Your task to perform on an android device: Open calendar and show me the third week of next month Image 0: 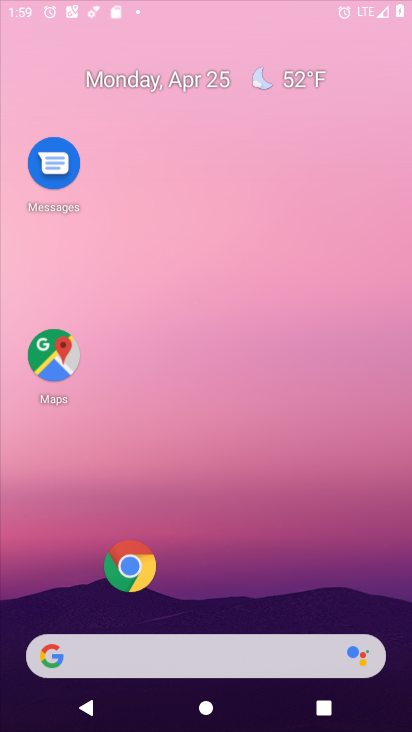
Step 0: drag from (258, 570) to (332, 215)
Your task to perform on an android device: Open calendar and show me the third week of next month Image 1: 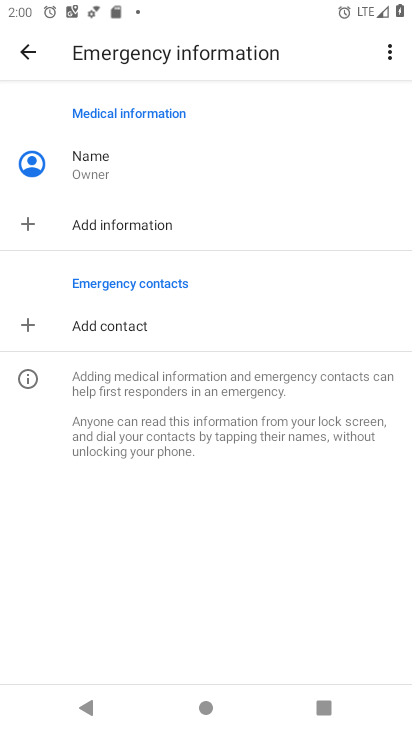
Step 1: press home button
Your task to perform on an android device: Open calendar and show me the third week of next month Image 2: 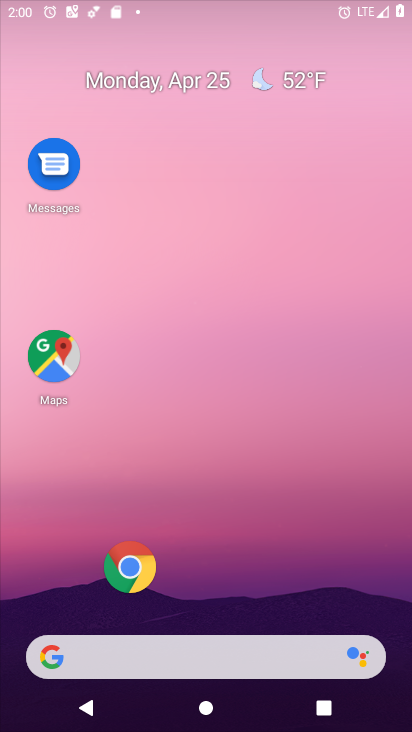
Step 2: drag from (243, 516) to (301, 130)
Your task to perform on an android device: Open calendar and show me the third week of next month Image 3: 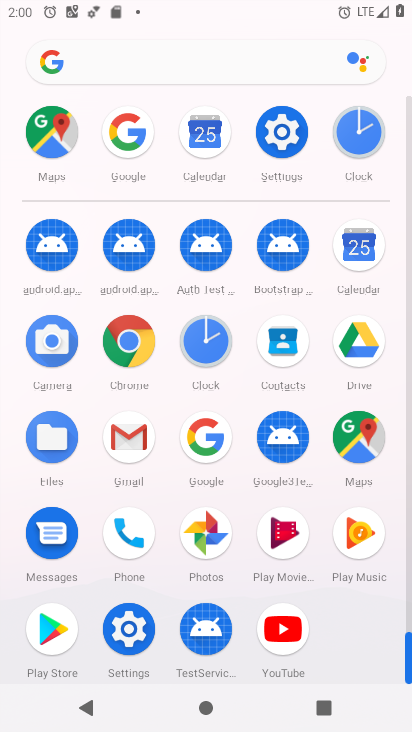
Step 3: click (360, 255)
Your task to perform on an android device: Open calendar and show me the third week of next month Image 4: 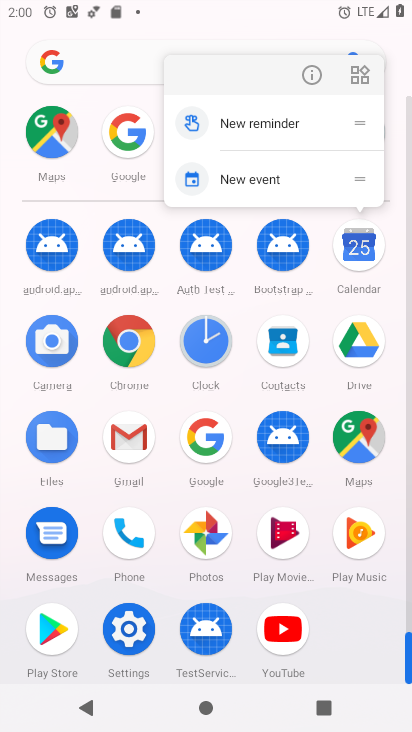
Step 4: click (363, 271)
Your task to perform on an android device: Open calendar and show me the third week of next month Image 5: 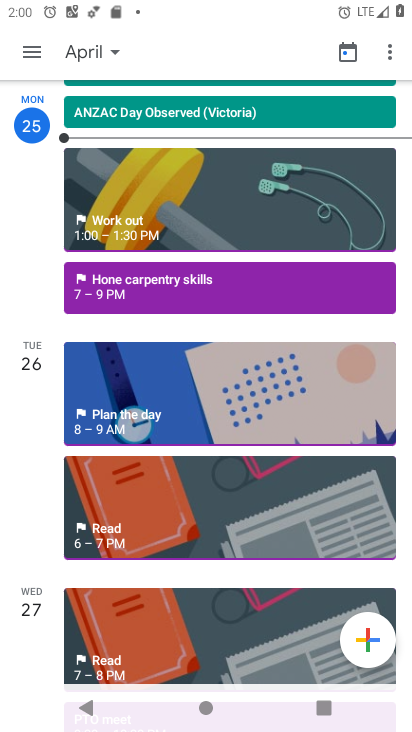
Step 5: click (113, 59)
Your task to perform on an android device: Open calendar and show me the third week of next month Image 6: 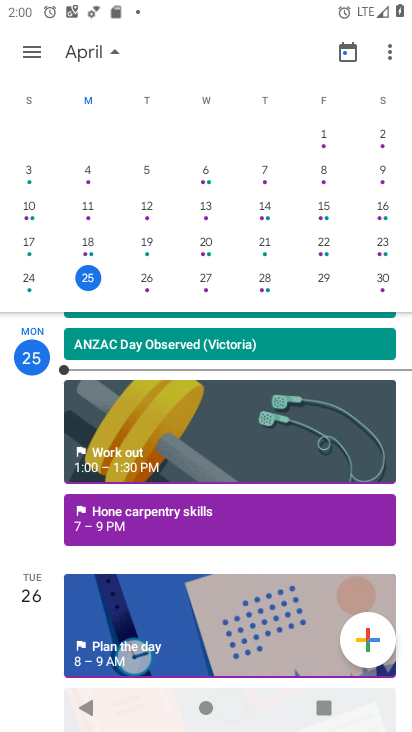
Step 6: drag from (204, 228) to (4, 222)
Your task to perform on an android device: Open calendar and show me the third week of next month Image 7: 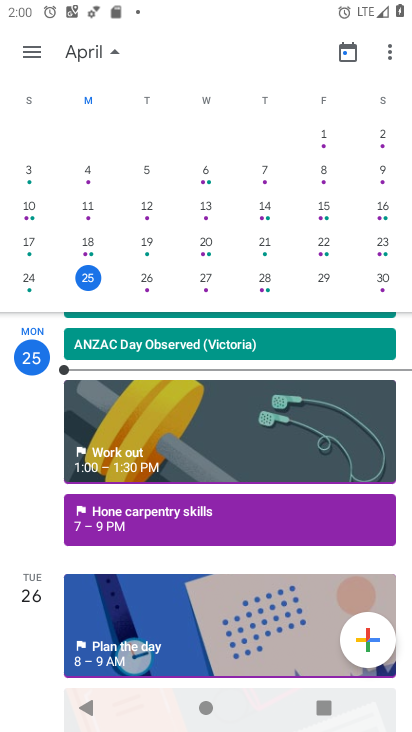
Step 7: drag from (140, 222) to (1, 174)
Your task to perform on an android device: Open calendar and show me the third week of next month Image 8: 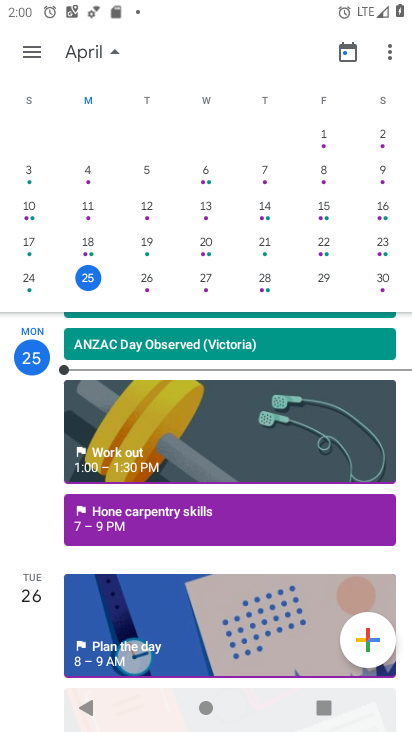
Step 8: drag from (346, 227) to (6, 246)
Your task to perform on an android device: Open calendar and show me the third week of next month Image 9: 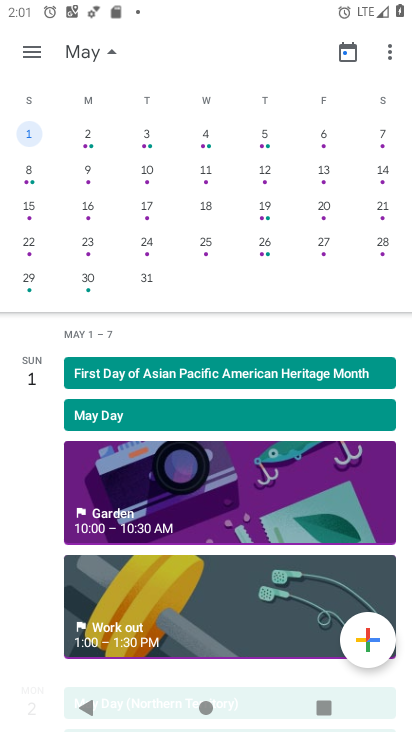
Step 9: click (27, 222)
Your task to perform on an android device: Open calendar and show me the third week of next month Image 10: 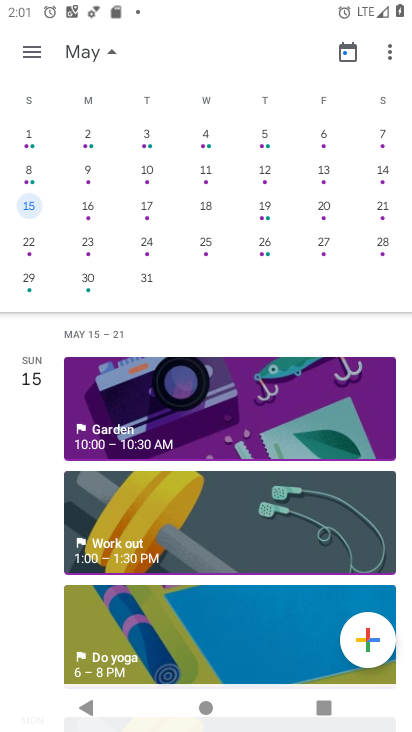
Step 10: task complete